Your task to perform on an android device: turn on data saver in the chrome app Image 0: 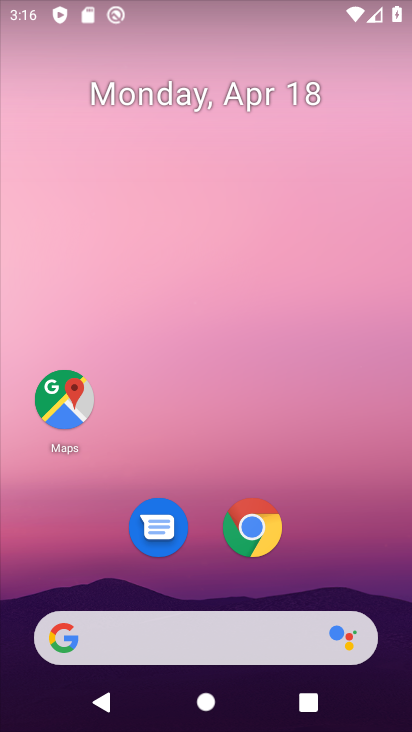
Step 0: click (230, 545)
Your task to perform on an android device: turn on data saver in the chrome app Image 1: 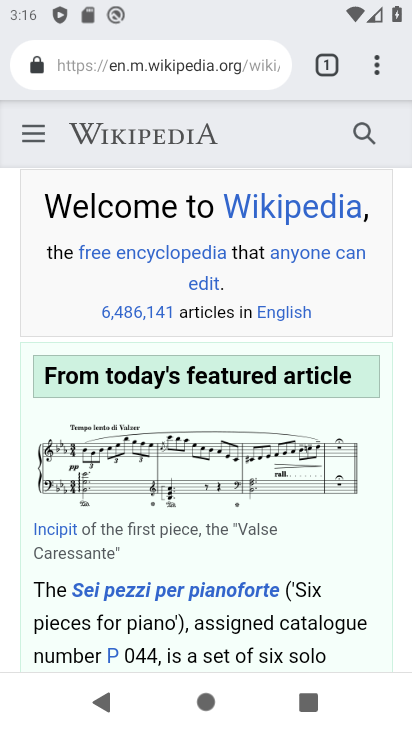
Step 1: click (371, 65)
Your task to perform on an android device: turn on data saver in the chrome app Image 2: 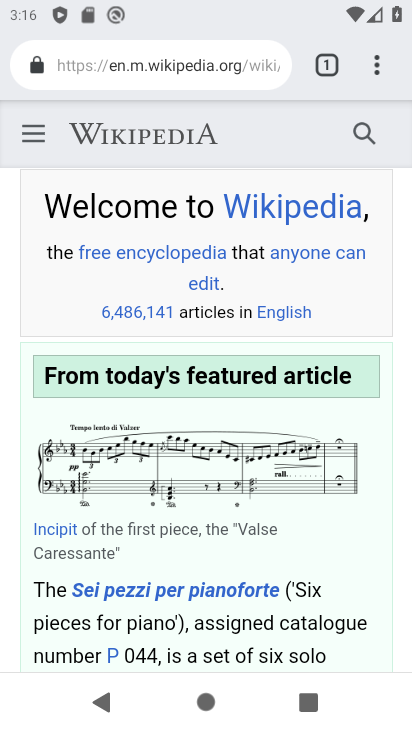
Step 2: click (373, 70)
Your task to perform on an android device: turn on data saver in the chrome app Image 3: 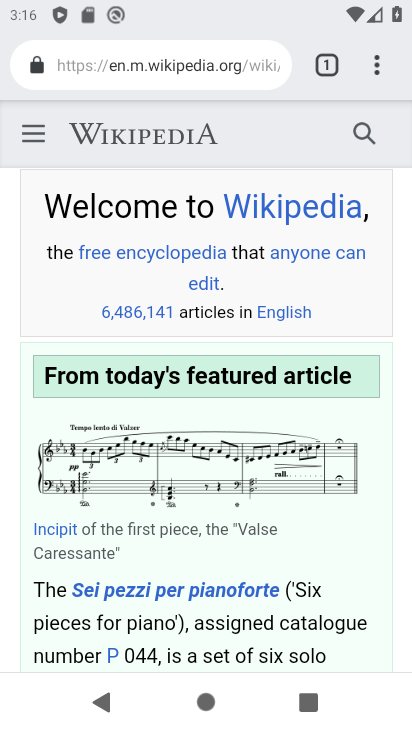
Step 3: click (373, 70)
Your task to perform on an android device: turn on data saver in the chrome app Image 4: 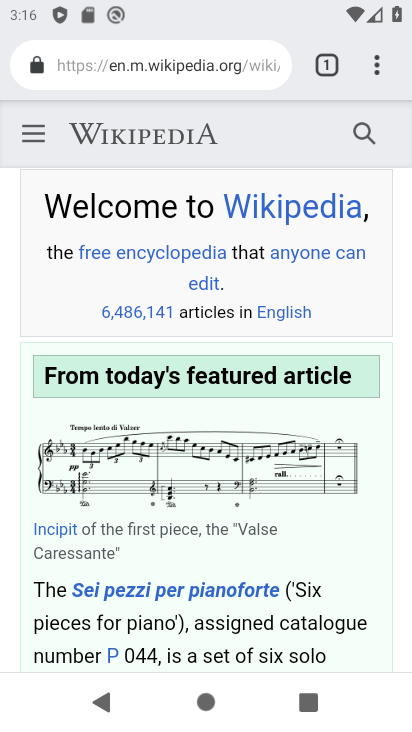
Step 4: drag from (373, 70) to (148, 587)
Your task to perform on an android device: turn on data saver in the chrome app Image 5: 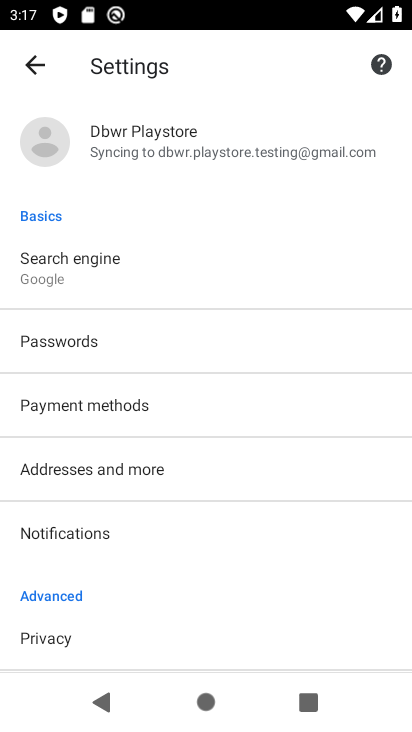
Step 5: drag from (110, 542) to (90, 177)
Your task to perform on an android device: turn on data saver in the chrome app Image 6: 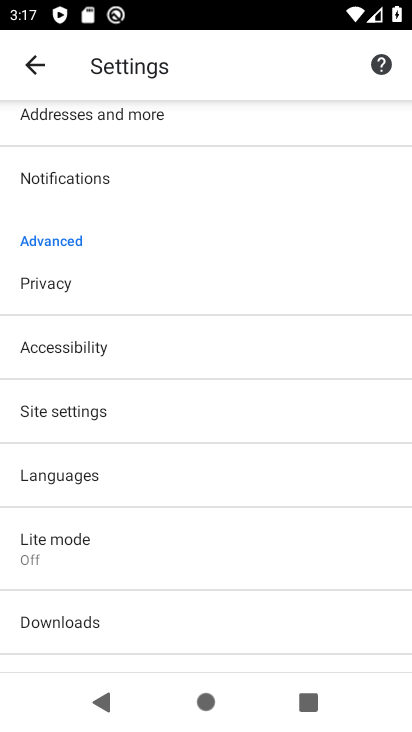
Step 6: click (81, 553)
Your task to perform on an android device: turn on data saver in the chrome app Image 7: 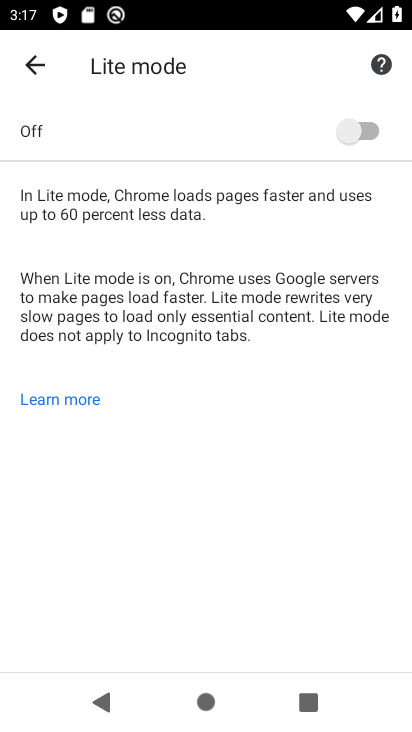
Step 7: click (359, 127)
Your task to perform on an android device: turn on data saver in the chrome app Image 8: 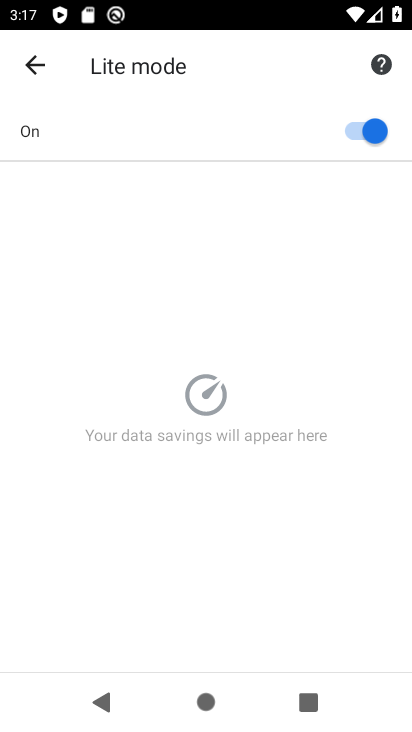
Step 8: task complete